Your task to perform on an android device: remove spam from my inbox in the gmail app Image 0: 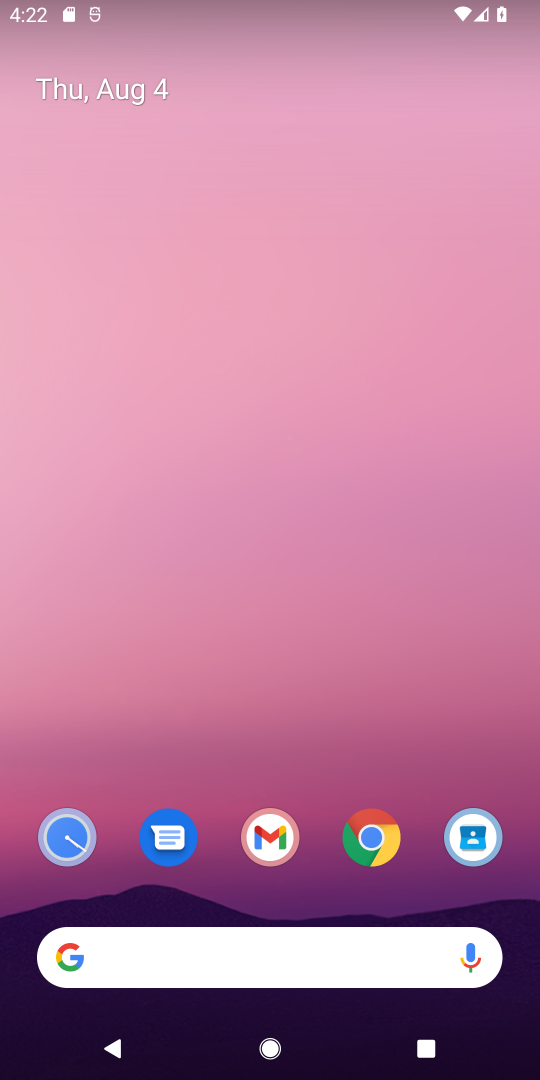
Step 0: click (303, 737)
Your task to perform on an android device: remove spam from my inbox in the gmail app Image 1: 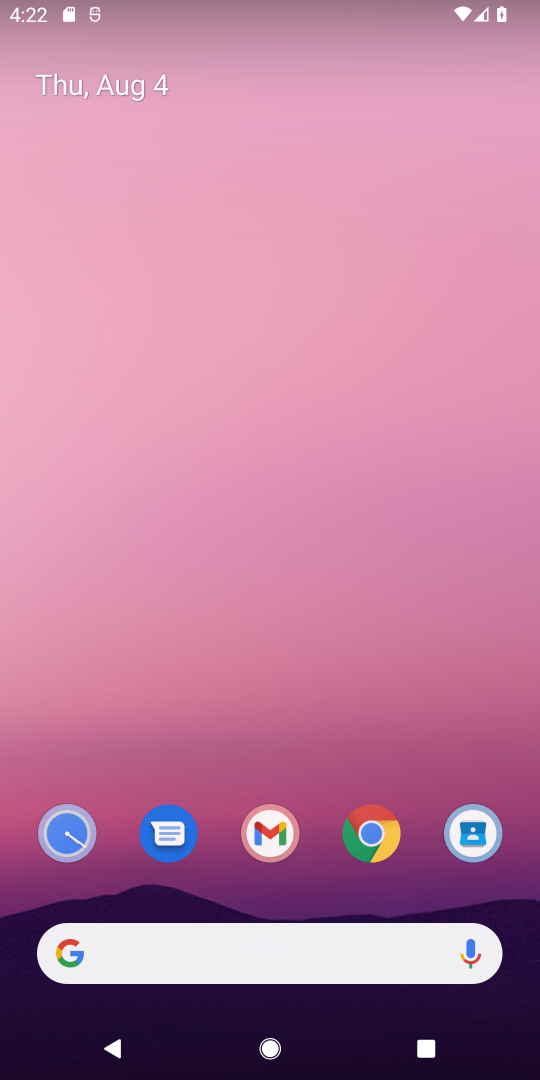
Step 1: click (272, 825)
Your task to perform on an android device: remove spam from my inbox in the gmail app Image 2: 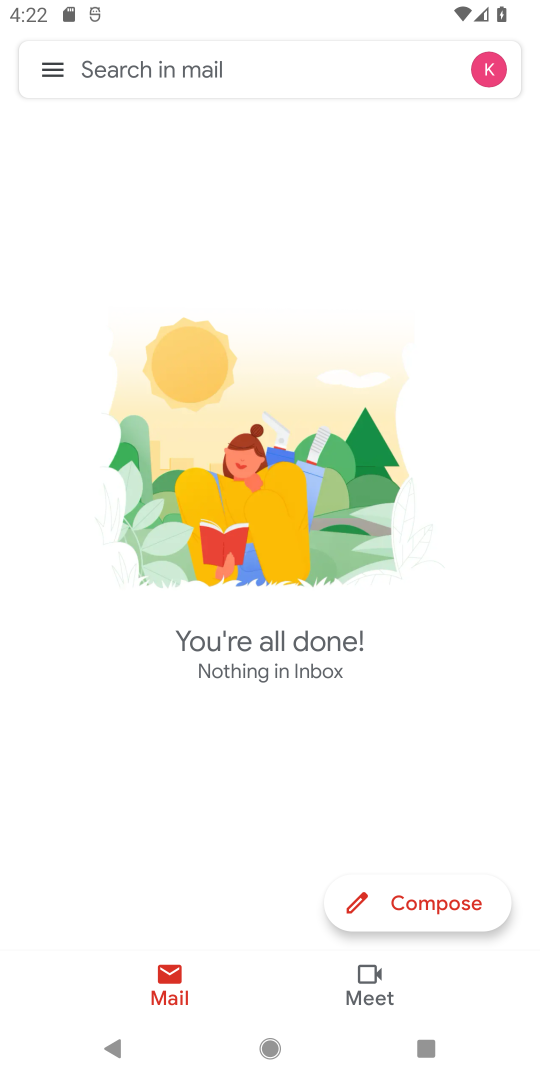
Step 2: click (45, 52)
Your task to perform on an android device: remove spam from my inbox in the gmail app Image 3: 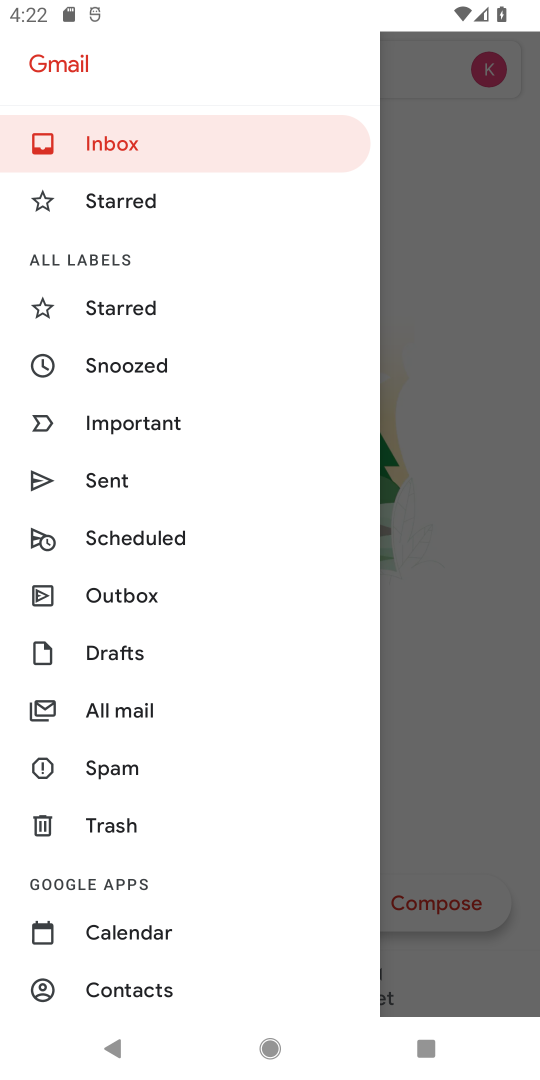
Step 3: click (115, 763)
Your task to perform on an android device: remove spam from my inbox in the gmail app Image 4: 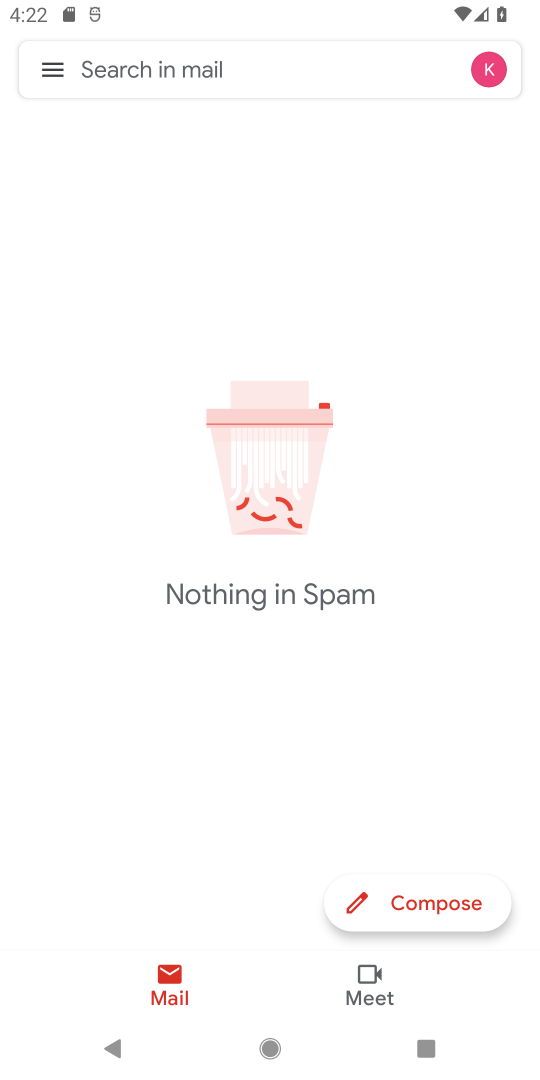
Step 4: task complete